Your task to perform on an android device: toggle pop-ups in chrome Image 0: 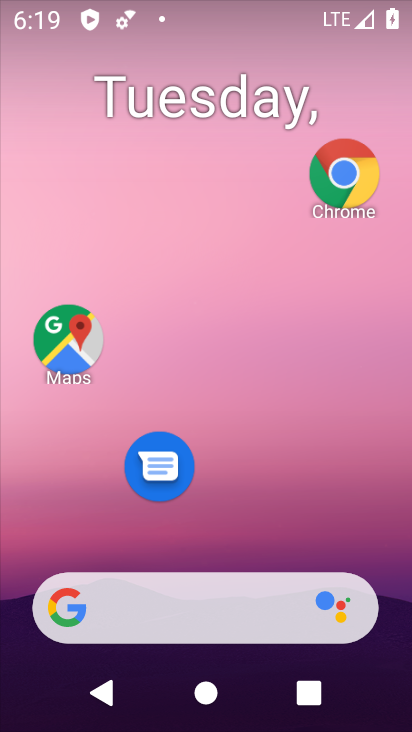
Step 0: click (358, 186)
Your task to perform on an android device: toggle pop-ups in chrome Image 1: 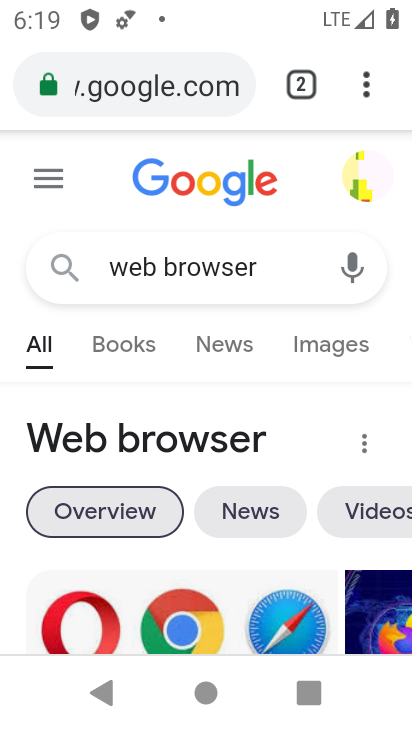
Step 1: drag from (375, 83) to (185, 502)
Your task to perform on an android device: toggle pop-ups in chrome Image 2: 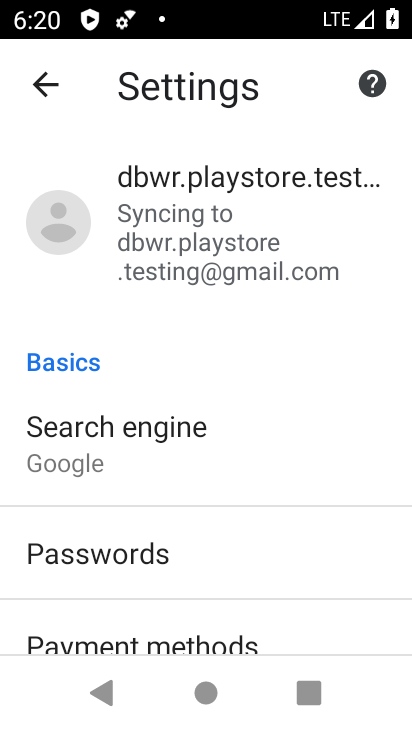
Step 2: drag from (262, 606) to (240, 242)
Your task to perform on an android device: toggle pop-ups in chrome Image 3: 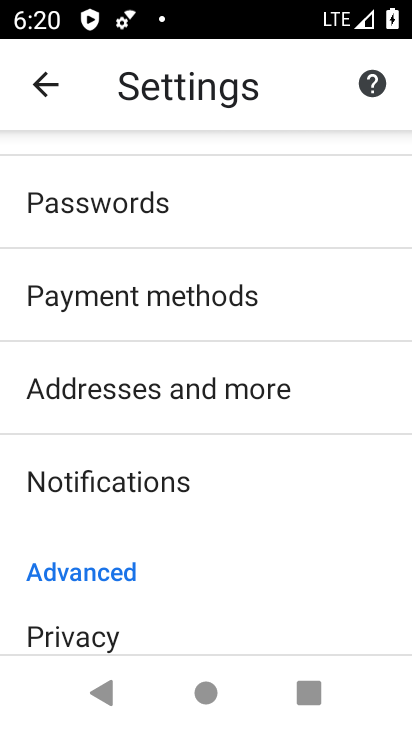
Step 3: drag from (238, 622) to (244, 219)
Your task to perform on an android device: toggle pop-ups in chrome Image 4: 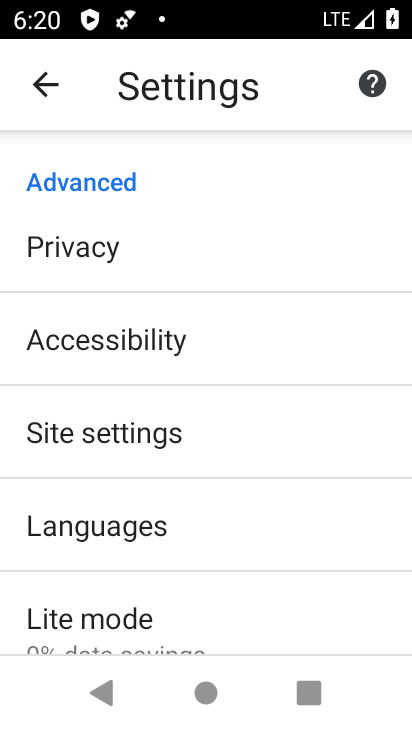
Step 4: click (92, 460)
Your task to perform on an android device: toggle pop-ups in chrome Image 5: 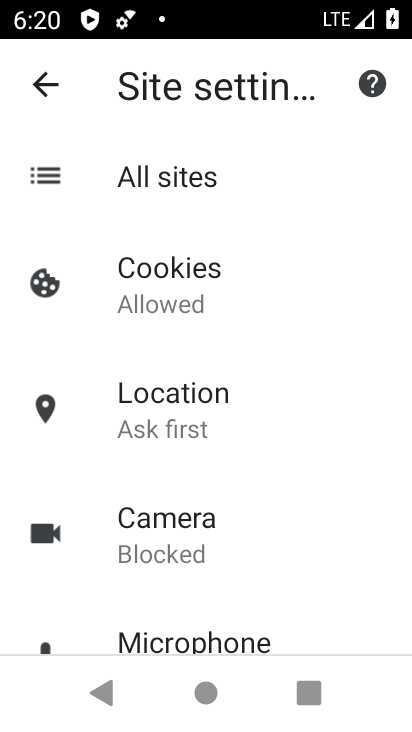
Step 5: drag from (224, 586) to (249, 230)
Your task to perform on an android device: toggle pop-ups in chrome Image 6: 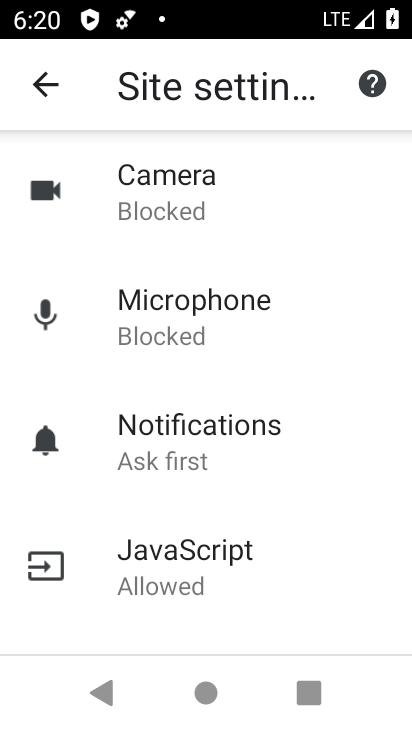
Step 6: drag from (249, 228) to (259, 698)
Your task to perform on an android device: toggle pop-ups in chrome Image 7: 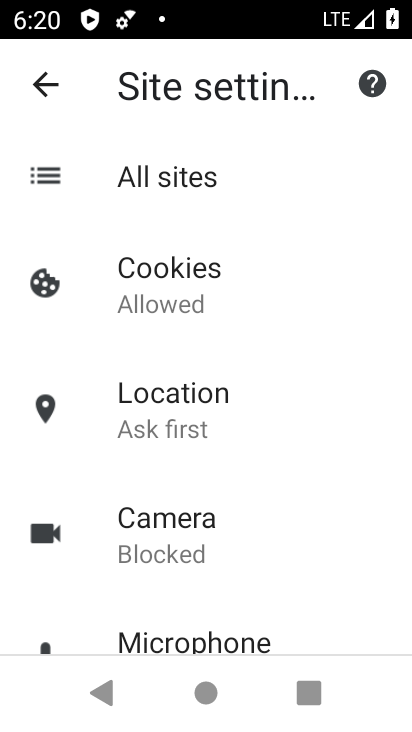
Step 7: click (215, 171)
Your task to perform on an android device: toggle pop-ups in chrome Image 8: 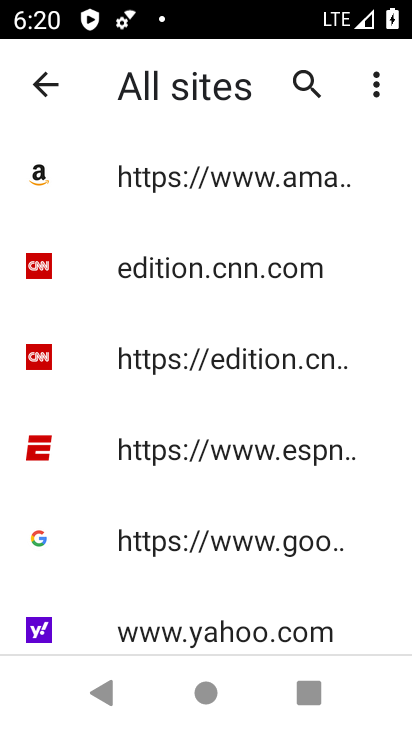
Step 8: click (43, 90)
Your task to perform on an android device: toggle pop-ups in chrome Image 9: 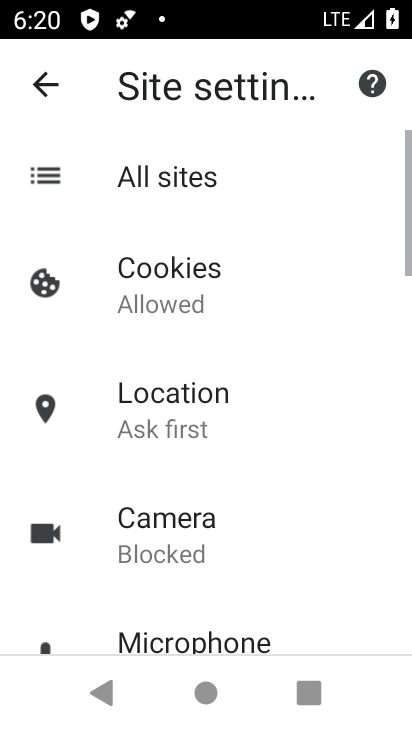
Step 9: drag from (243, 524) to (248, 147)
Your task to perform on an android device: toggle pop-ups in chrome Image 10: 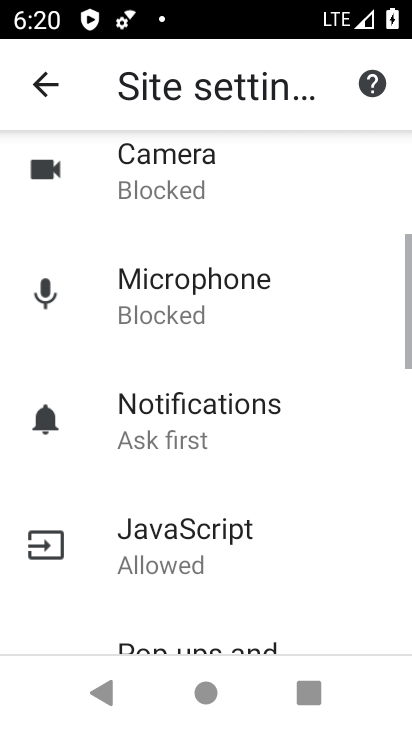
Step 10: drag from (249, 489) to (241, 274)
Your task to perform on an android device: toggle pop-ups in chrome Image 11: 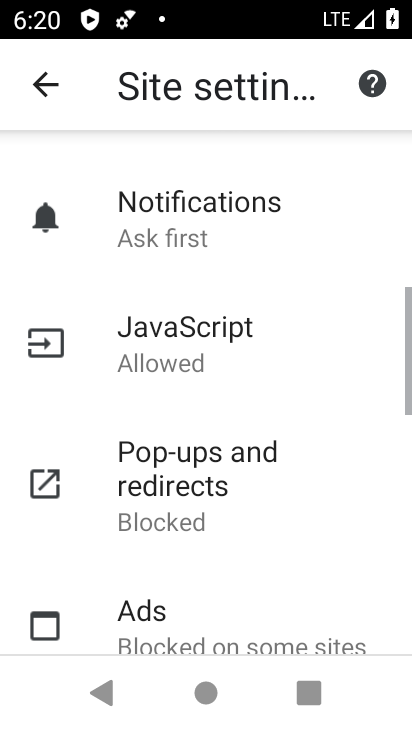
Step 11: click (216, 497)
Your task to perform on an android device: toggle pop-ups in chrome Image 12: 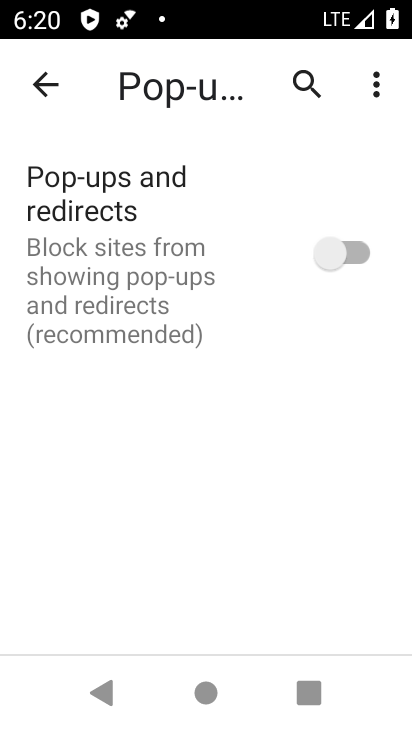
Step 12: click (161, 295)
Your task to perform on an android device: toggle pop-ups in chrome Image 13: 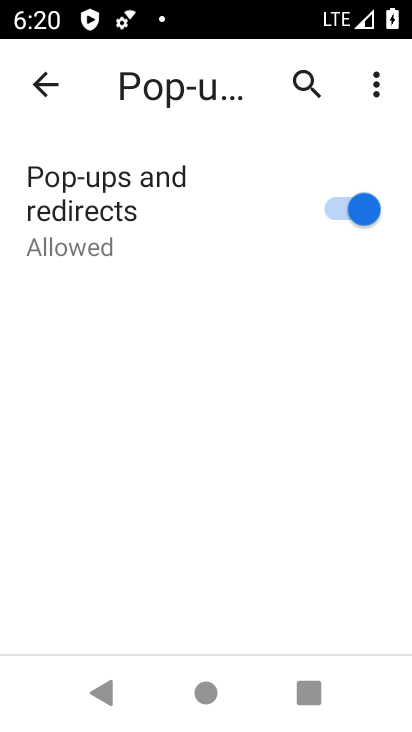
Step 13: task complete